Your task to perform on an android device: change the clock style Image 0: 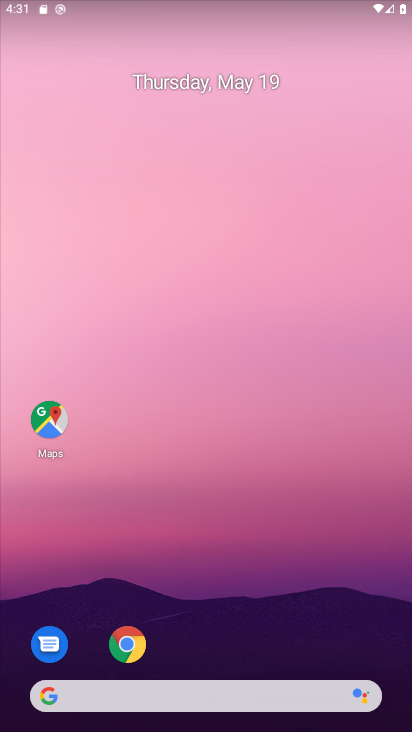
Step 0: press home button
Your task to perform on an android device: change the clock style Image 1: 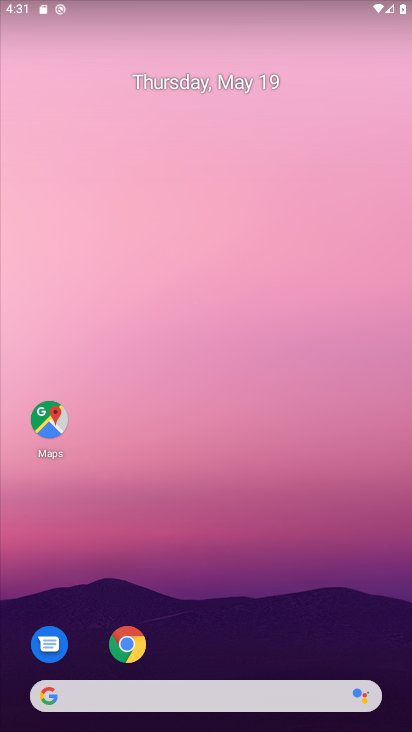
Step 1: drag from (396, 669) to (274, 123)
Your task to perform on an android device: change the clock style Image 2: 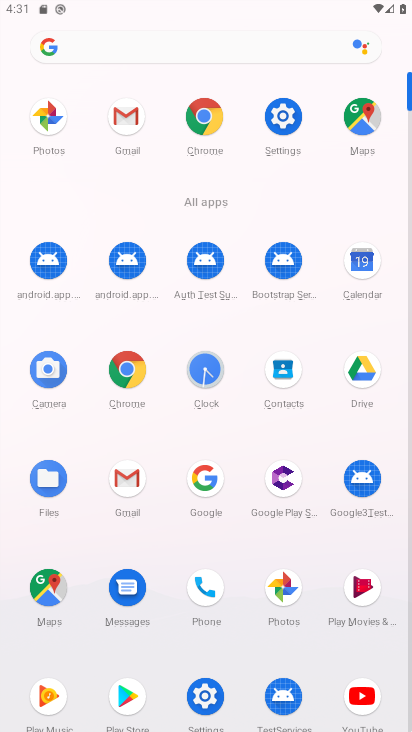
Step 2: click (208, 391)
Your task to perform on an android device: change the clock style Image 3: 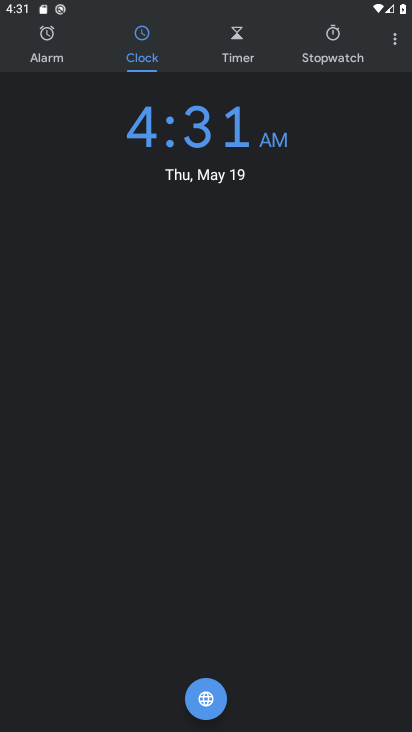
Step 3: click (390, 39)
Your task to perform on an android device: change the clock style Image 4: 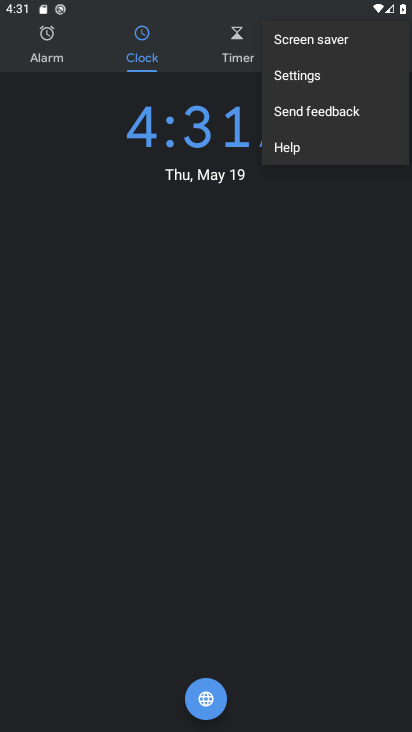
Step 4: click (309, 68)
Your task to perform on an android device: change the clock style Image 5: 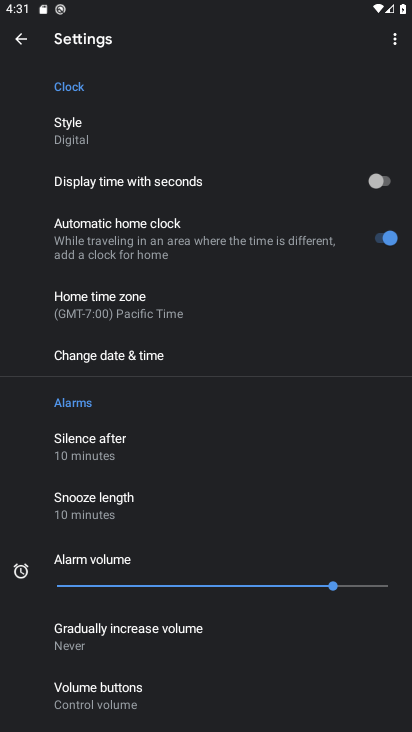
Step 5: click (95, 139)
Your task to perform on an android device: change the clock style Image 6: 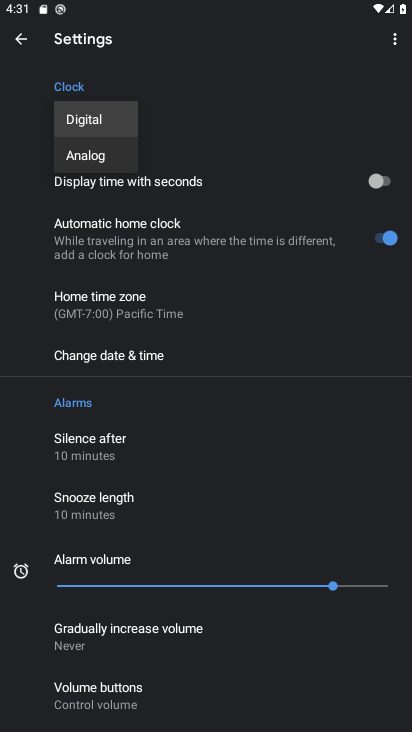
Step 6: click (84, 152)
Your task to perform on an android device: change the clock style Image 7: 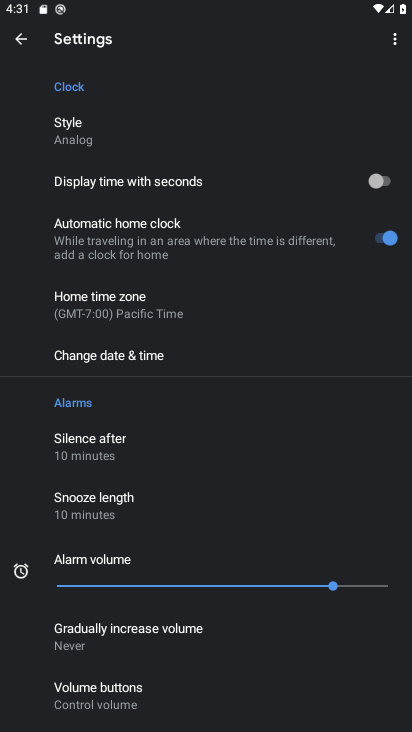
Step 7: task complete